Your task to perform on an android device: toggle notifications settings in the gmail app Image 0: 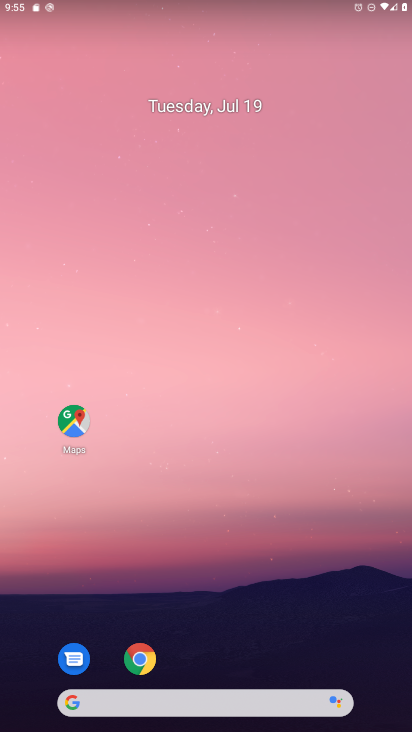
Step 0: drag from (209, 610) to (209, 298)
Your task to perform on an android device: toggle notifications settings in the gmail app Image 1: 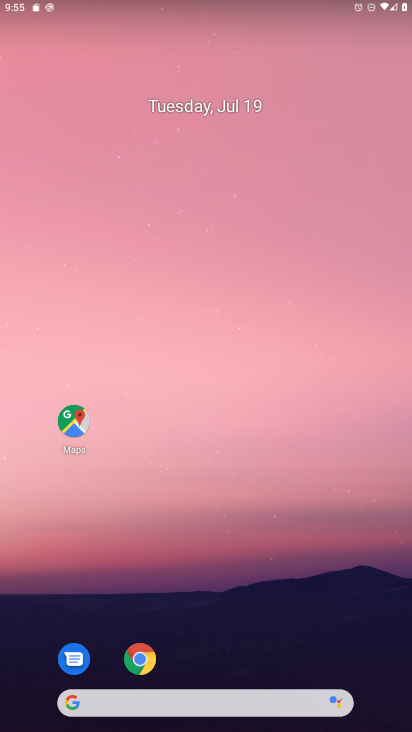
Step 1: drag from (254, 683) to (252, 182)
Your task to perform on an android device: toggle notifications settings in the gmail app Image 2: 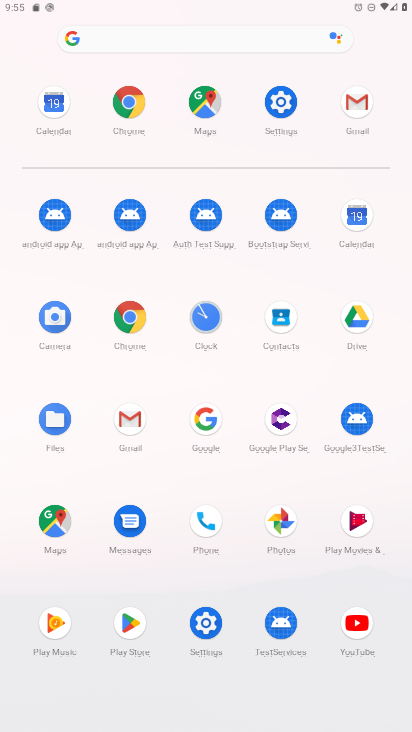
Step 2: click (365, 101)
Your task to perform on an android device: toggle notifications settings in the gmail app Image 3: 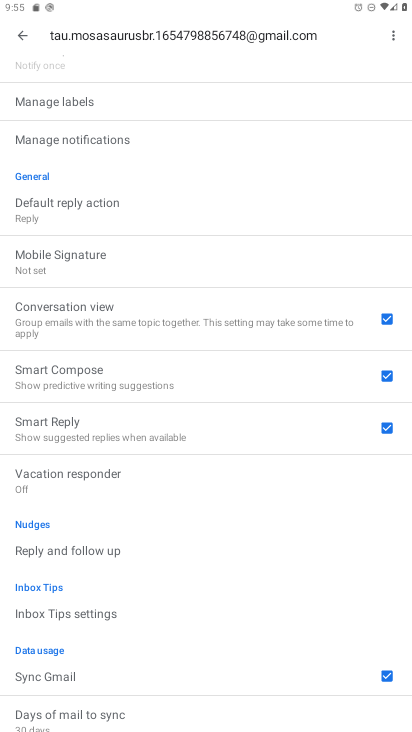
Step 3: drag from (103, 215) to (151, 638)
Your task to perform on an android device: toggle notifications settings in the gmail app Image 4: 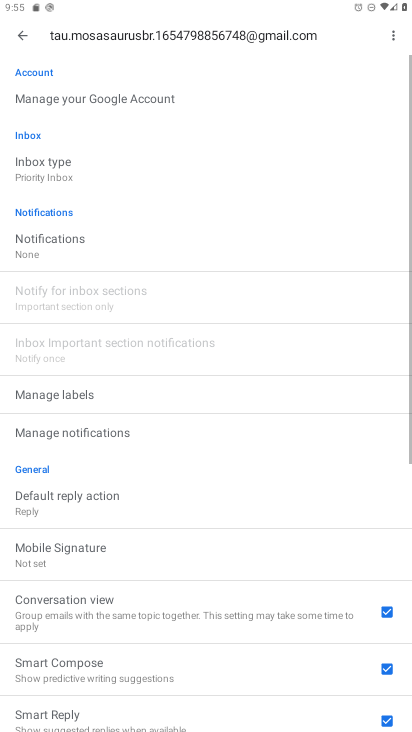
Step 4: click (55, 233)
Your task to perform on an android device: toggle notifications settings in the gmail app Image 5: 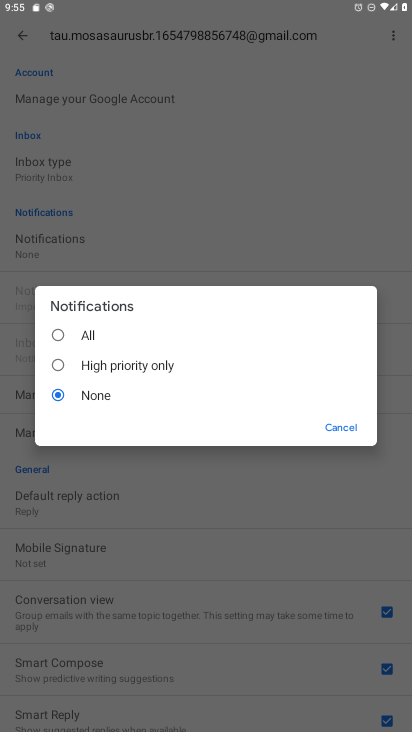
Step 5: click (66, 337)
Your task to perform on an android device: toggle notifications settings in the gmail app Image 6: 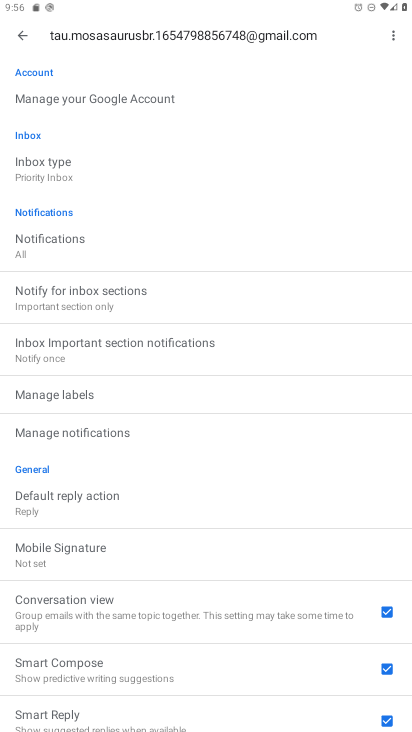
Step 6: task complete